Your task to perform on an android device: Open calendar and show me the third week of next month Image 0: 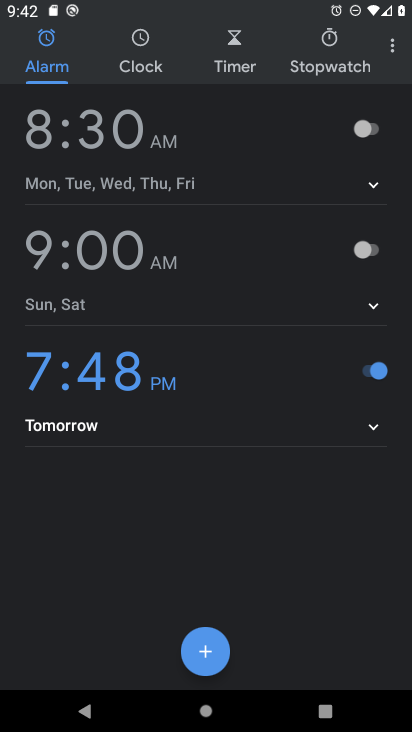
Step 0: press home button
Your task to perform on an android device: Open calendar and show me the third week of next month Image 1: 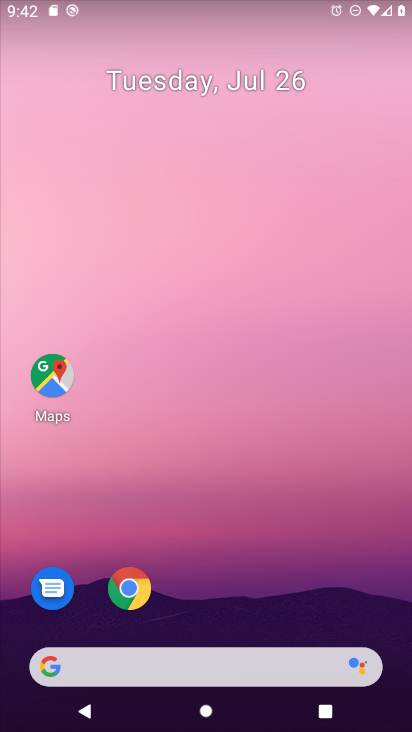
Step 1: drag from (221, 658) to (241, 101)
Your task to perform on an android device: Open calendar and show me the third week of next month Image 2: 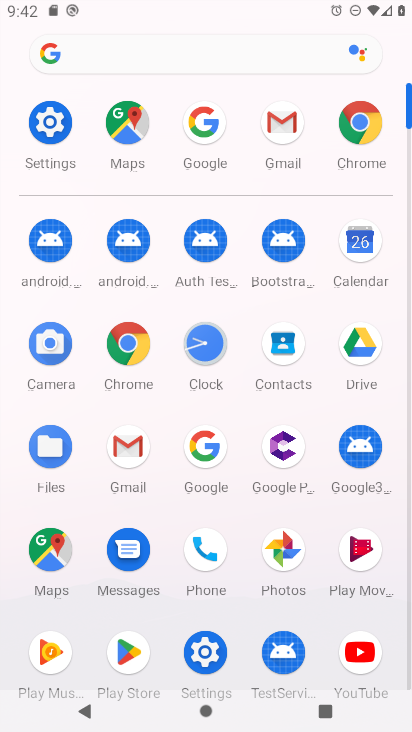
Step 2: click (360, 254)
Your task to perform on an android device: Open calendar and show me the third week of next month Image 3: 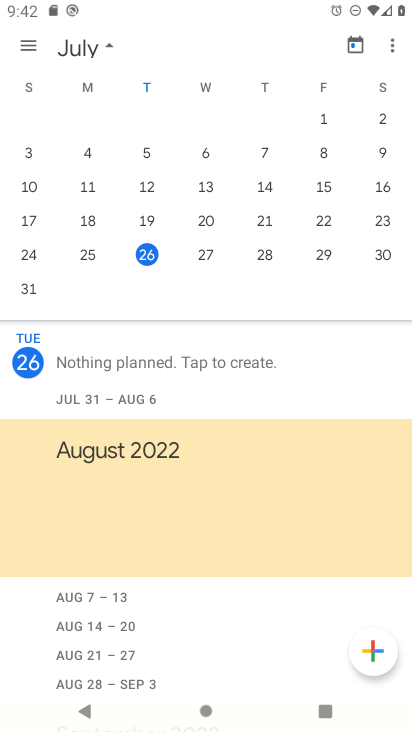
Step 3: drag from (349, 222) to (42, 277)
Your task to perform on an android device: Open calendar and show me the third week of next month Image 4: 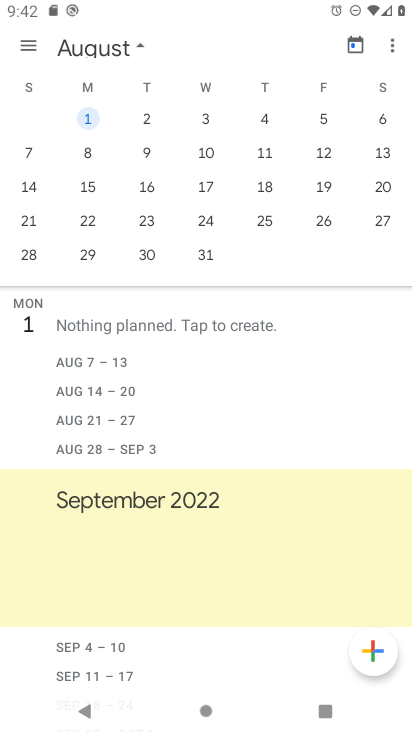
Step 4: click (32, 191)
Your task to perform on an android device: Open calendar and show me the third week of next month Image 5: 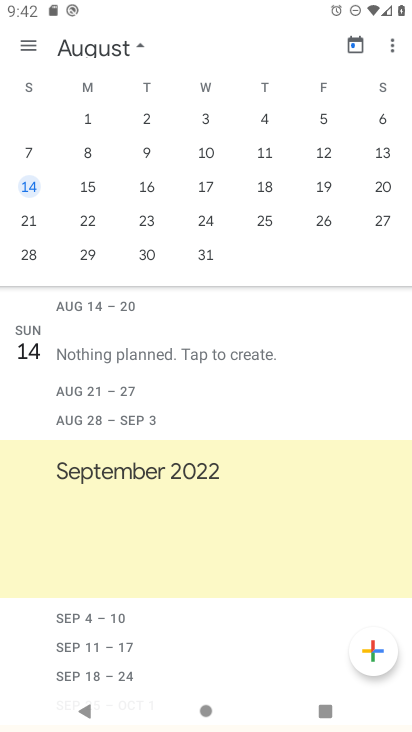
Step 5: task complete